Your task to perform on an android device: turn notification dots off Image 0: 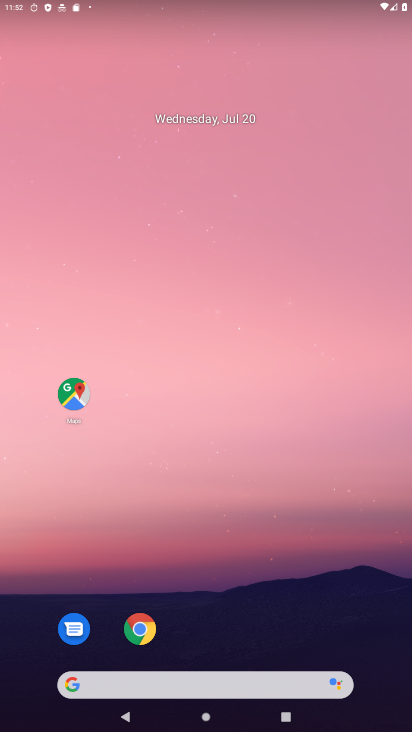
Step 0: drag from (301, 672) to (342, 36)
Your task to perform on an android device: turn notification dots off Image 1: 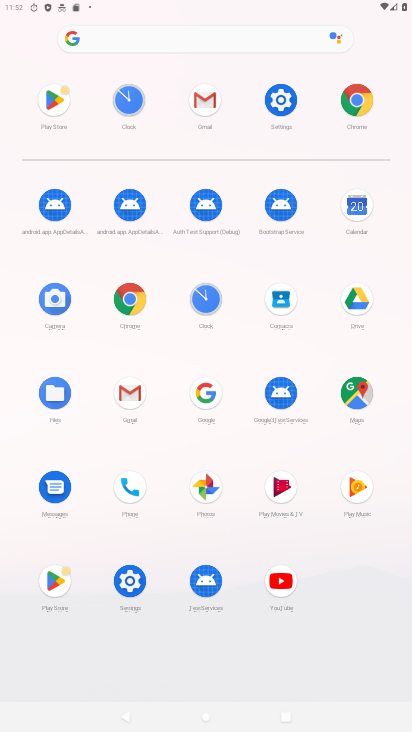
Step 1: click (274, 95)
Your task to perform on an android device: turn notification dots off Image 2: 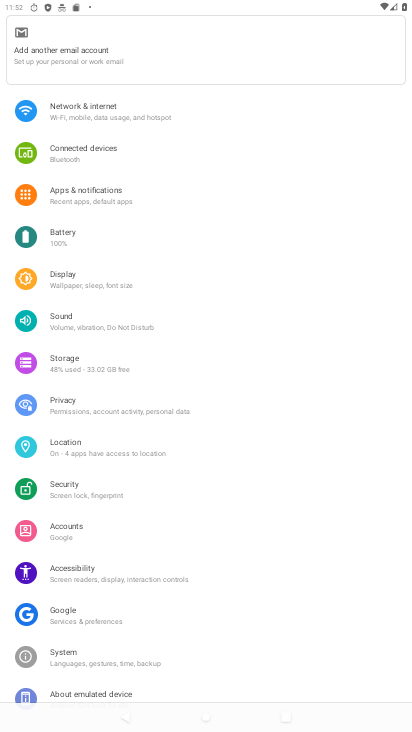
Step 2: click (96, 195)
Your task to perform on an android device: turn notification dots off Image 3: 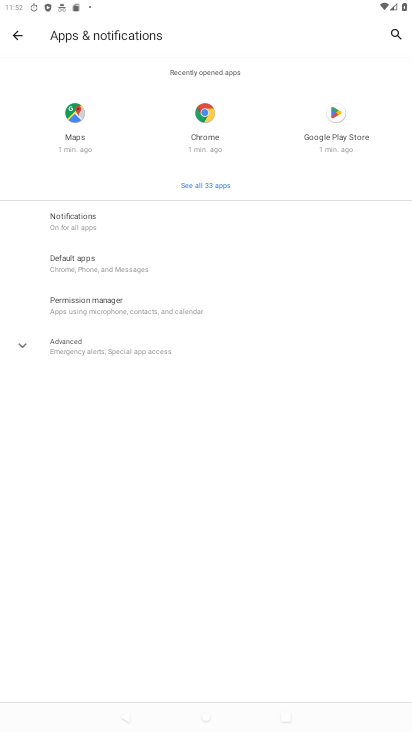
Step 3: click (92, 215)
Your task to perform on an android device: turn notification dots off Image 4: 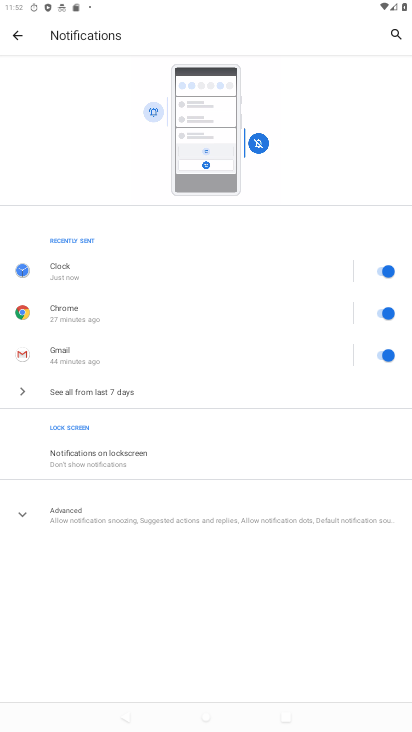
Step 4: click (132, 515)
Your task to perform on an android device: turn notification dots off Image 5: 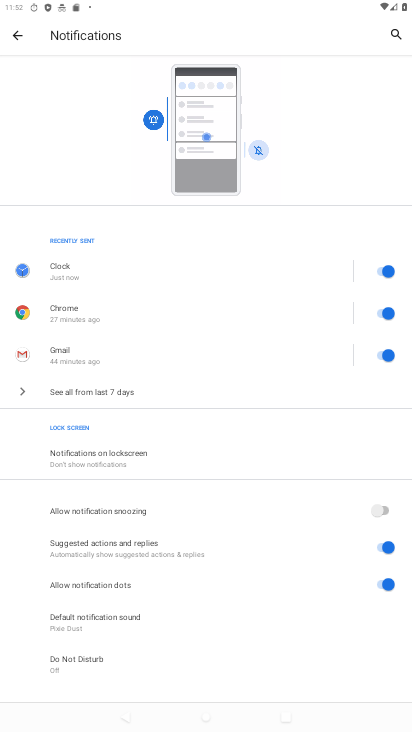
Step 5: click (387, 585)
Your task to perform on an android device: turn notification dots off Image 6: 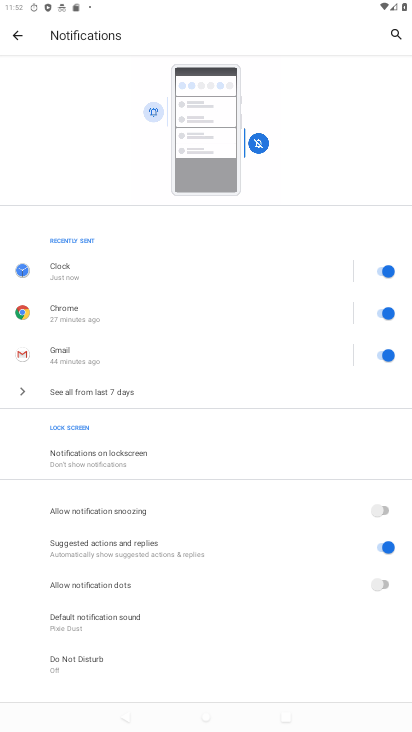
Step 6: task complete